Your task to perform on an android device: Open calendar and show me the first week of next month Image 0: 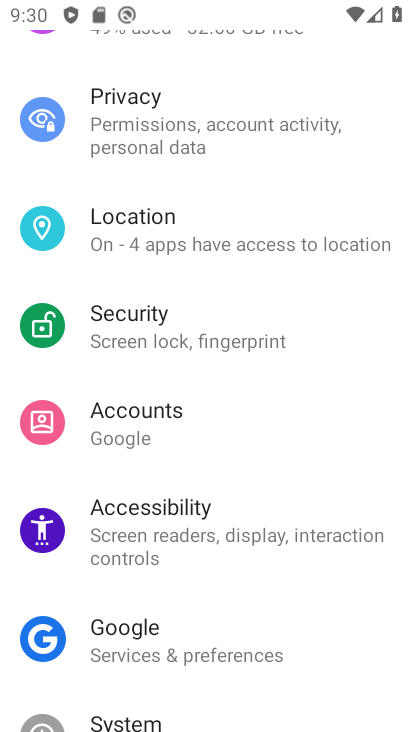
Step 0: press home button
Your task to perform on an android device: Open calendar and show me the first week of next month Image 1: 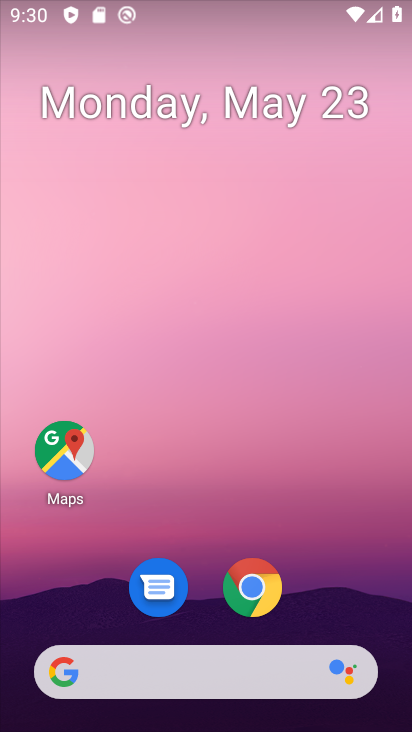
Step 1: drag from (365, 564) to (334, 21)
Your task to perform on an android device: Open calendar and show me the first week of next month Image 2: 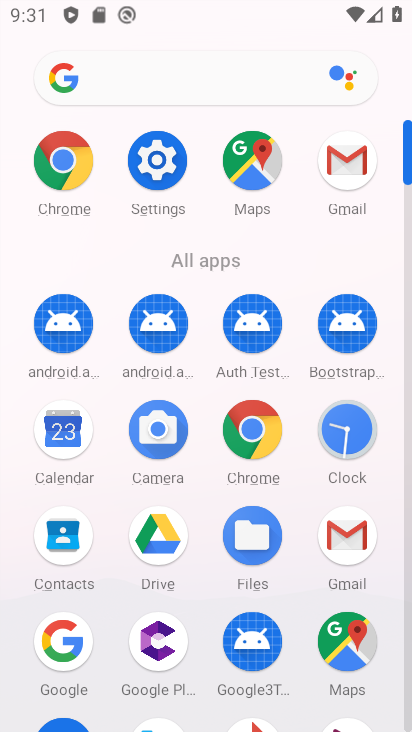
Step 2: click (71, 453)
Your task to perform on an android device: Open calendar and show me the first week of next month Image 3: 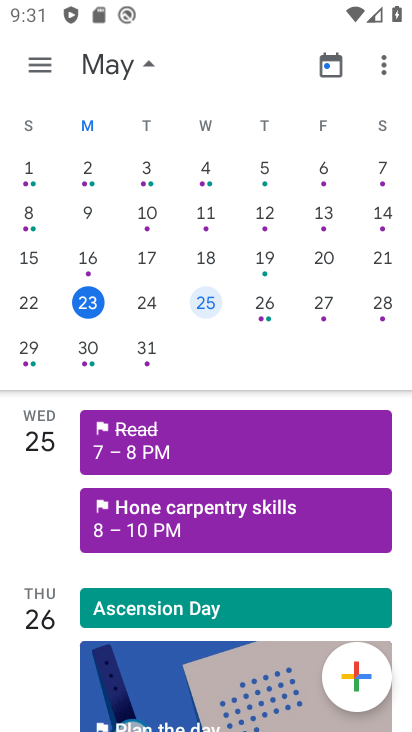
Step 3: drag from (344, 286) to (36, 214)
Your task to perform on an android device: Open calendar and show me the first week of next month Image 4: 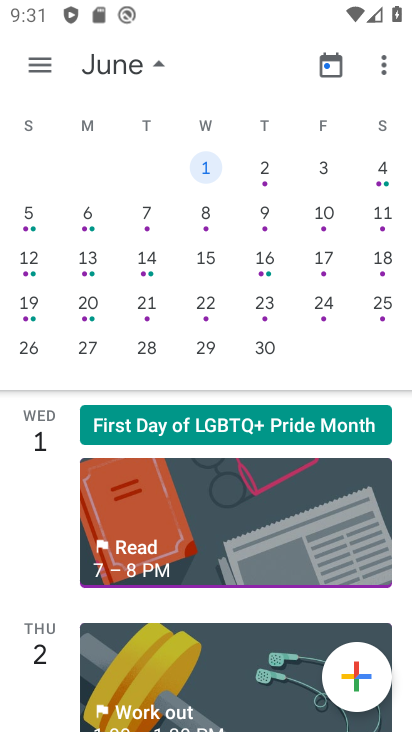
Step 4: click (36, 228)
Your task to perform on an android device: Open calendar and show me the first week of next month Image 5: 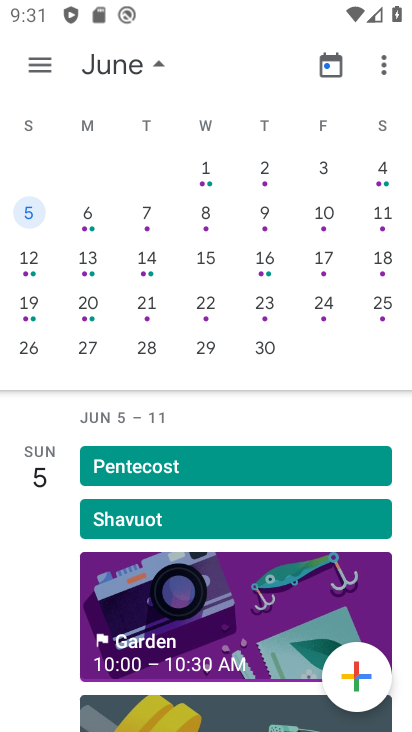
Step 5: task complete